Your task to perform on an android device: delete browsing data in the chrome app Image 0: 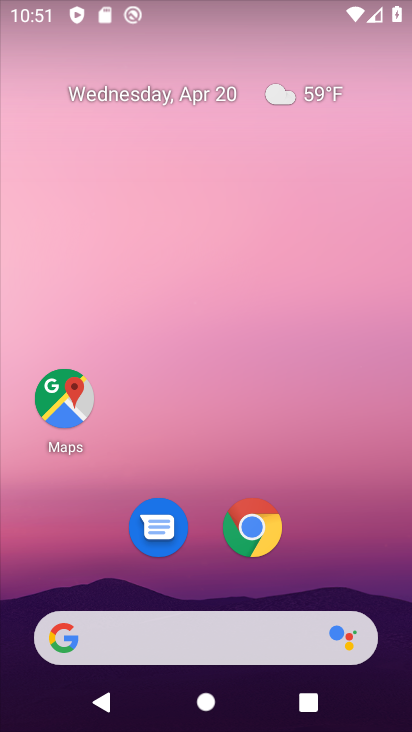
Step 0: drag from (372, 546) to (370, 173)
Your task to perform on an android device: delete browsing data in the chrome app Image 1: 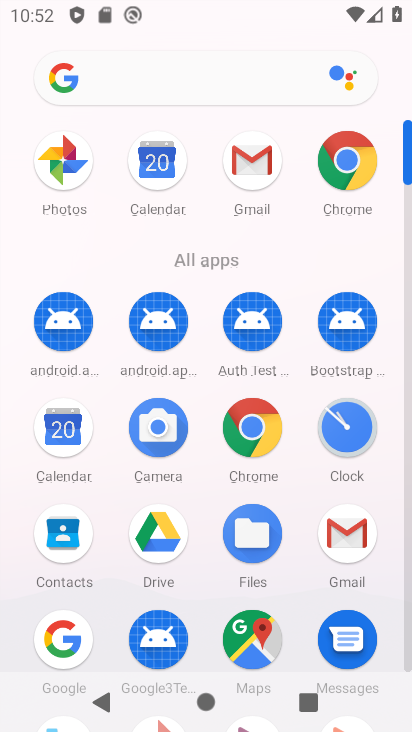
Step 1: drag from (205, 581) to (221, 259)
Your task to perform on an android device: delete browsing data in the chrome app Image 2: 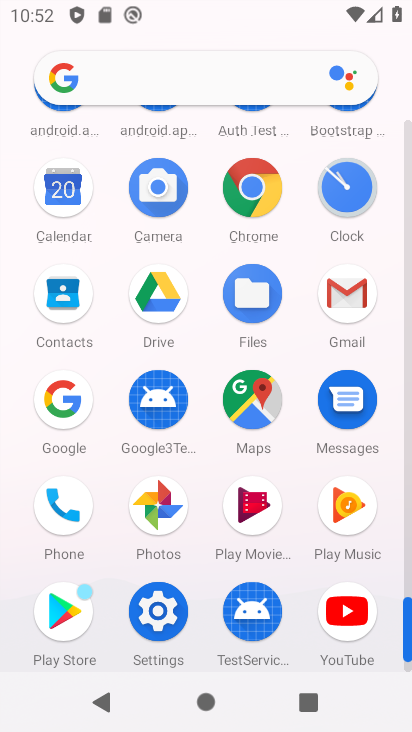
Step 2: click (274, 188)
Your task to perform on an android device: delete browsing data in the chrome app Image 3: 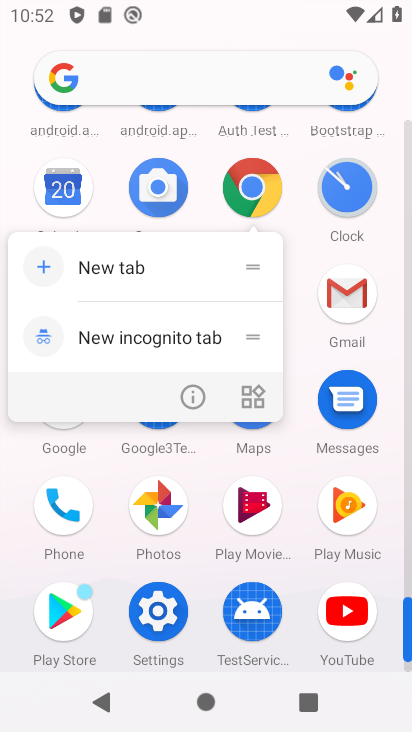
Step 3: click (251, 203)
Your task to perform on an android device: delete browsing data in the chrome app Image 4: 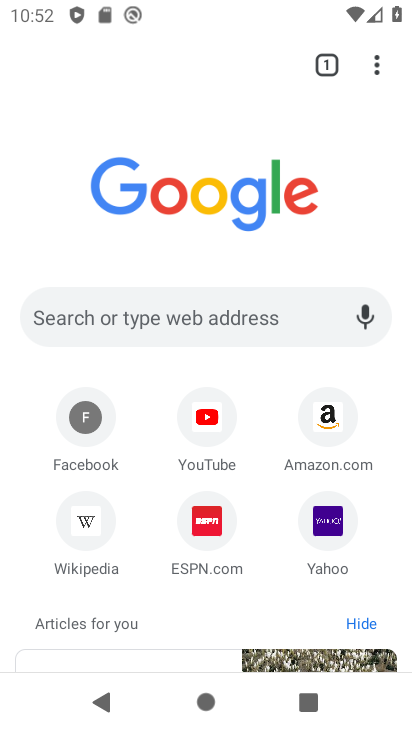
Step 4: task complete